Your task to perform on an android device: turn pop-ups on in chrome Image 0: 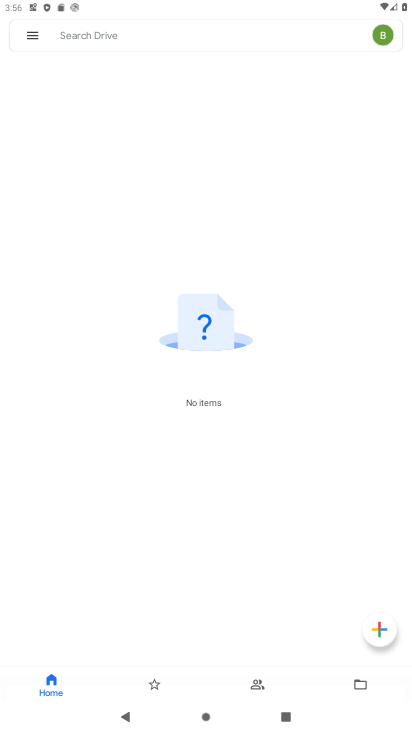
Step 0: press home button
Your task to perform on an android device: turn pop-ups on in chrome Image 1: 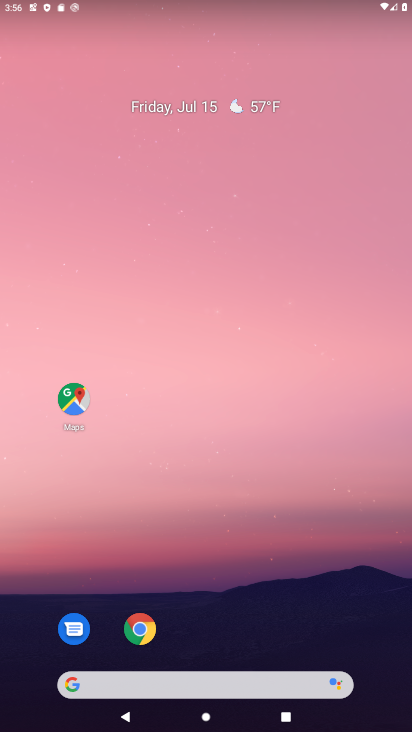
Step 1: click (151, 633)
Your task to perform on an android device: turn pop-ups on in chrome Image 2: 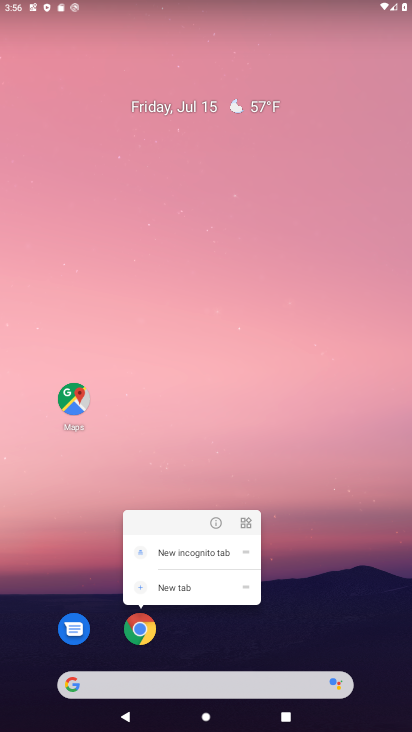
Step 2: click (145, 629)
Your task to perform on an android device: turn pop-ups on in chrome Image 3: 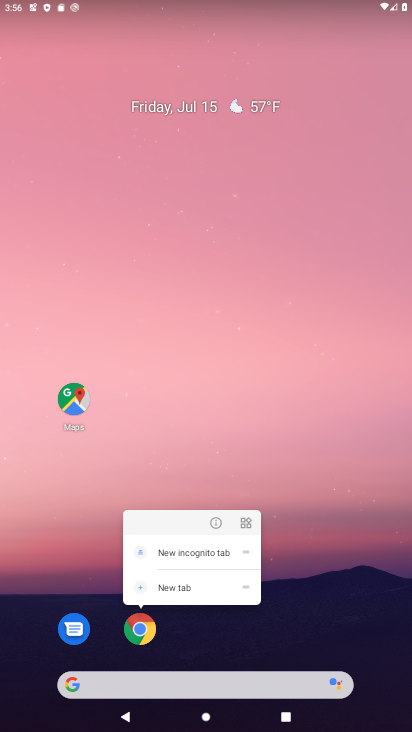
Step 3: click (145, 629)
Your task to perform on an android device: turn pop-ups on in chrome Image 4: 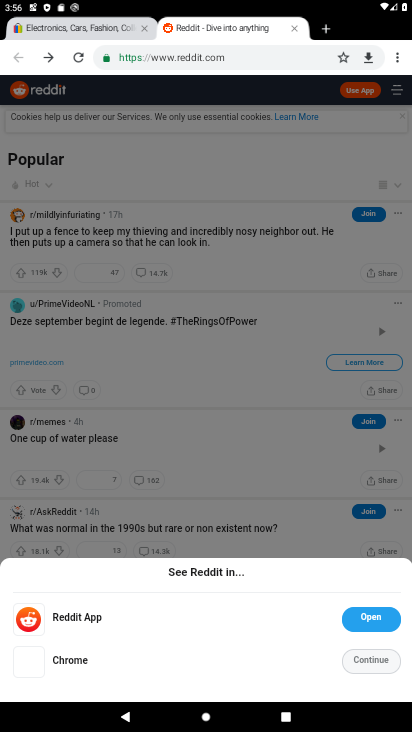
Step 4: drag from (145, 629) to (401, 52)
Your task to perform on an android device: turn pop-ups on in chrome Image 5: 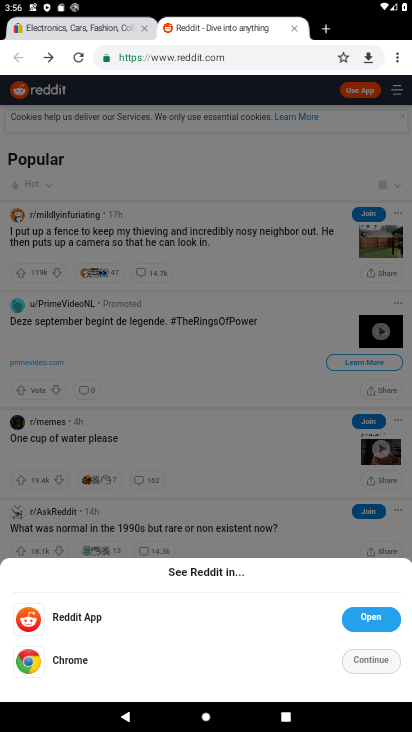
Step 5: click (399, 53)
Your task to perform on an android device: turn pop-ups on in chrome Image 6: 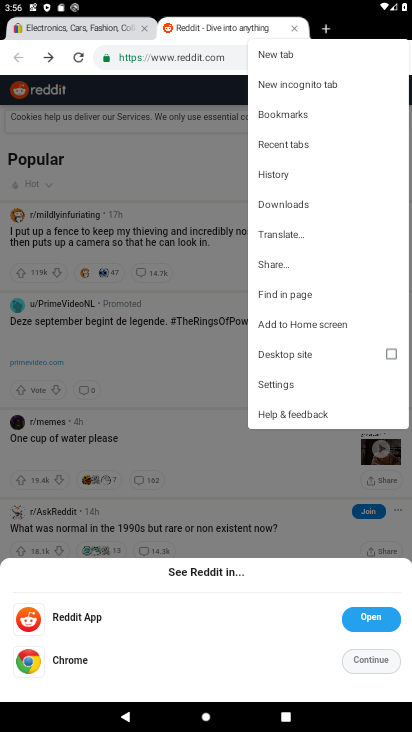
Step 6: click (280, 383)
Your task to perform on an android device: turn pop-ups on in chrome Image 7: 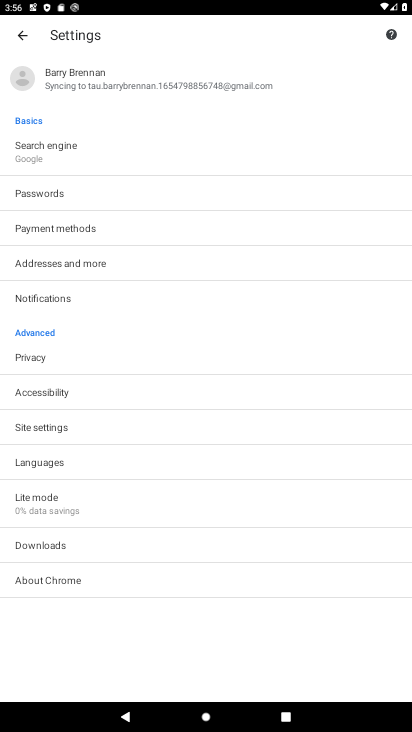
Step 7: click (46, 425)
Your task to perform on an android device: turn pop-ups on in chrome Image 8: 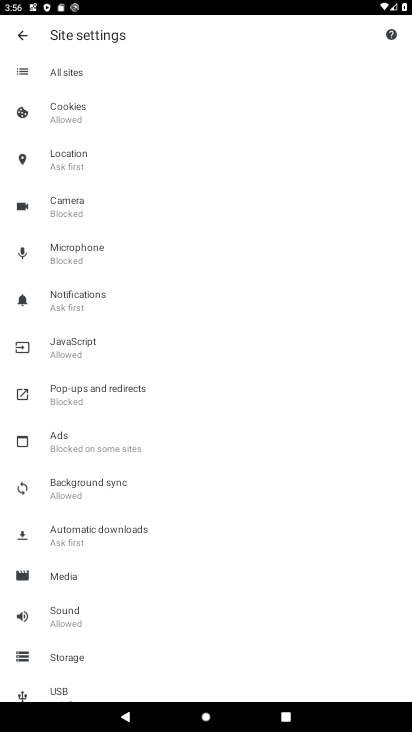
Step 8: click (95, 380)
Your task to perform on an android device: turn pop-ups on in chrome Image 9: 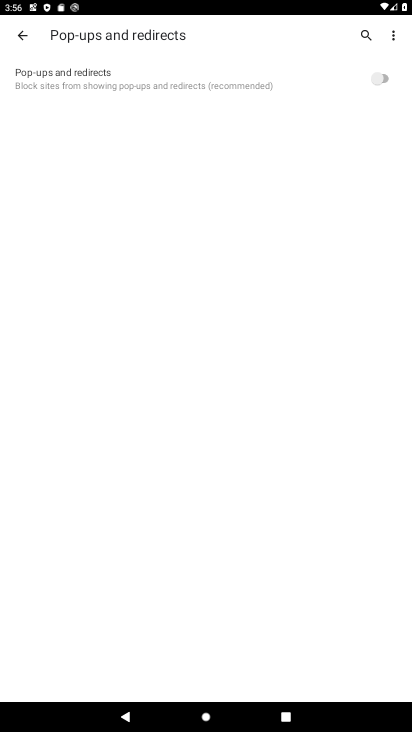
Step 9: click (390, 79)
Your task to perform on an android device: turn pop-ups on in chrome Image 10: 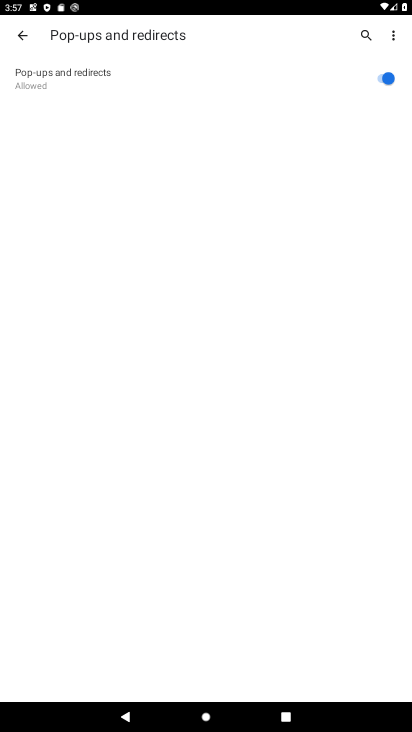
Step 10: task complete